Your task to perform on an android device: turn off improve location accuracy Image 0: 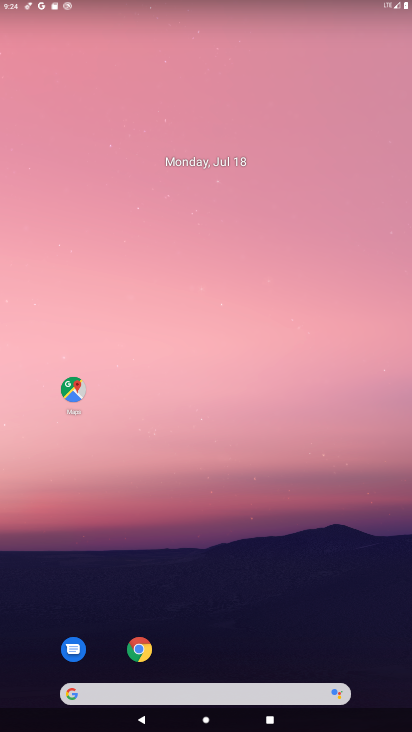
Step 0: drag from (233, 686) to (240, 359)
Your task to perform on an android device: turn off improve location accuracy Image 1: 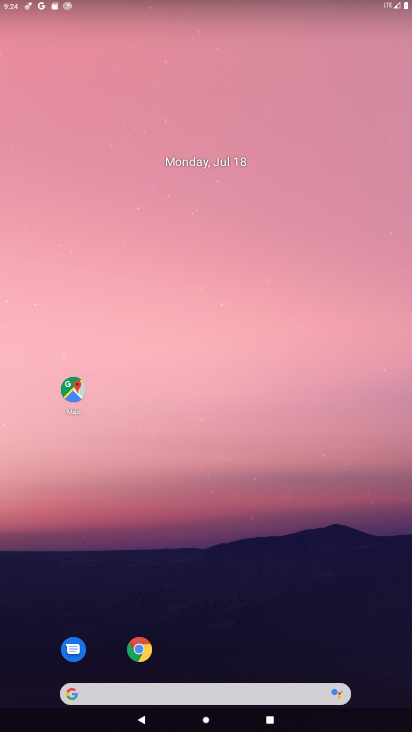
Step 1: drag from (174, 684) to (316, 141)
Your task to perform on an android device: turn off improve location accuracy Image 2: 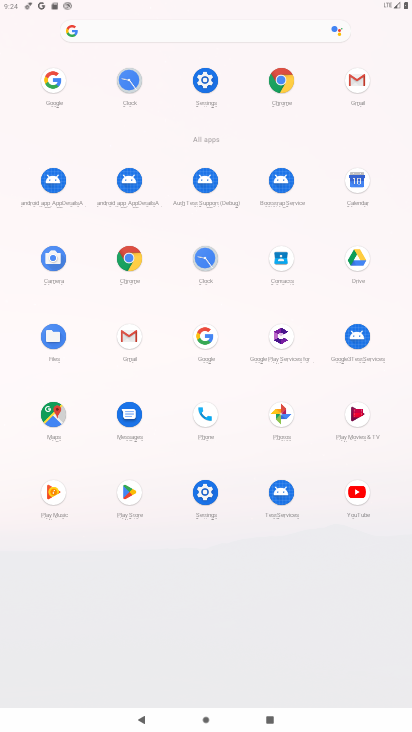
Step 2: click (204, 83)
Your task to perform on an android device: turn off improve location accuracy Image 3: 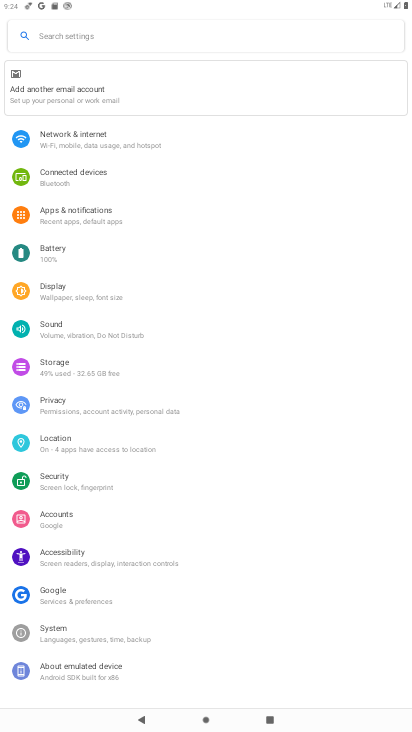
Step 3: click (62, 441)
Your task to perform on an android device: turn off improve location accuracy Image 4: 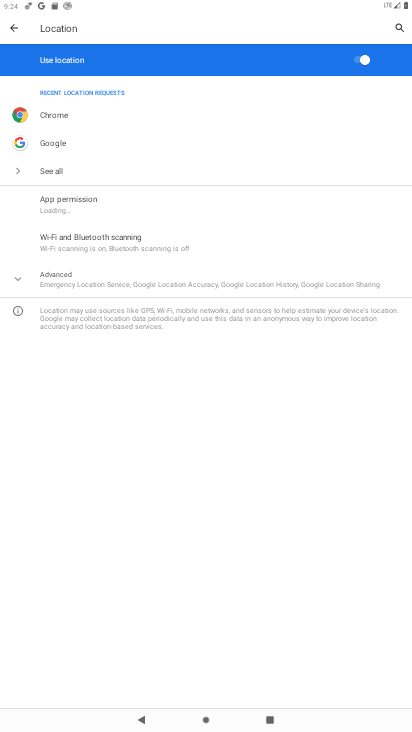
Step 4: click (42, 285)
Your task to perform on an android device: turn off improve location accuracy Image 5: 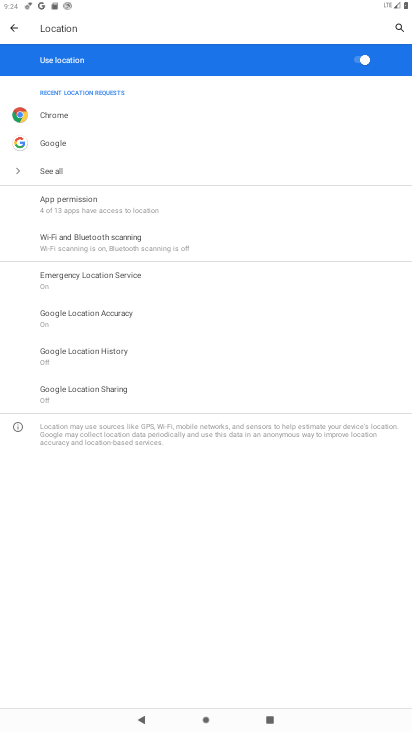
Step 5: click (63, 319)
Your task to perform on an android device: turn off improve location accuracy Image 6: 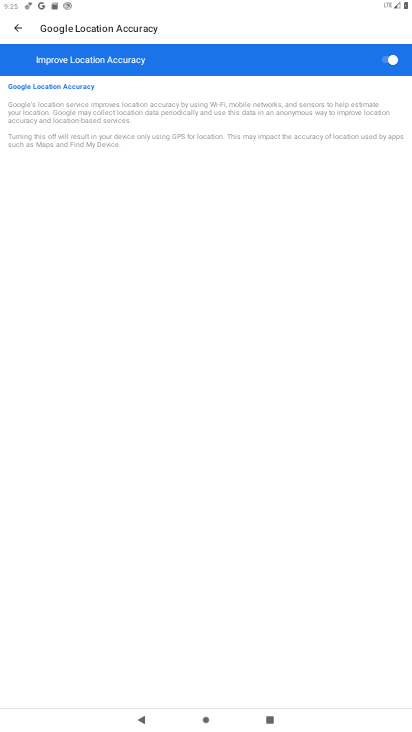
Step 6: click (388, 59)
Your task to perform on an android device: turn off improve location accuracy Image 7: 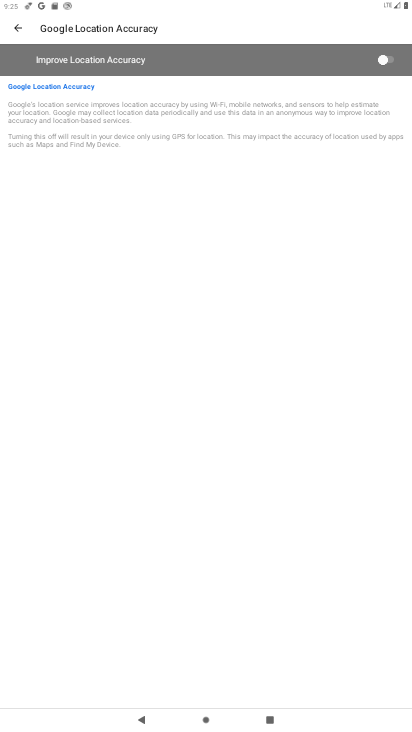
Step 7: task complete